Your task to perform on an android device: Open Google Chrome and click the shortcut for Amazon.com Image 0: 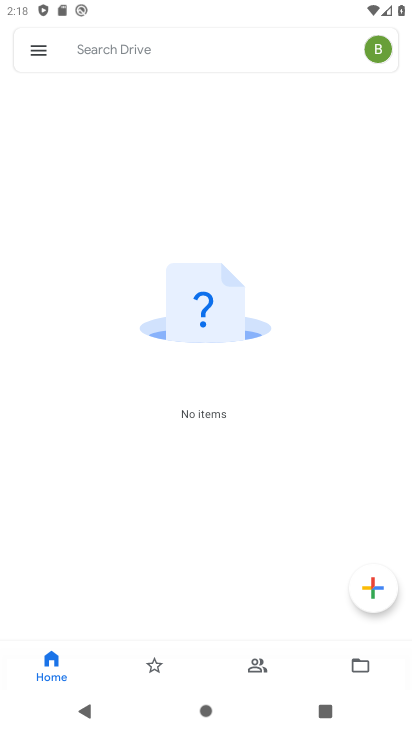
Step 0: press home button
Your task to perform on an android device: Open Google Chrome and click the shortcut for Amazon.com Image 1: 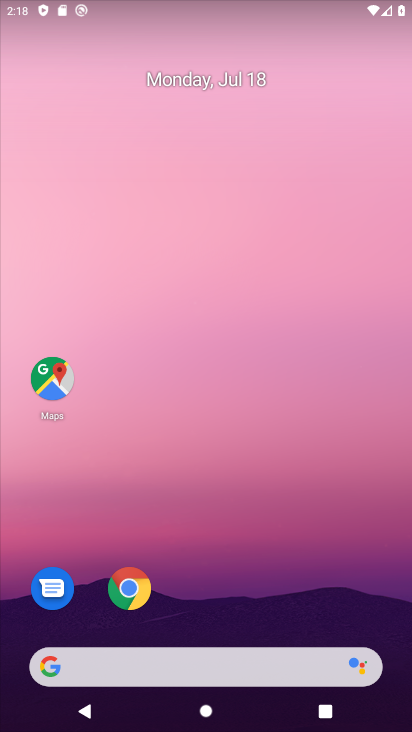
Step 1: drag from (241, 613) to (177, 21)
Your task to perform on an android device: Open Google Chrome and click the shortcut for Amazon.com Image 2: 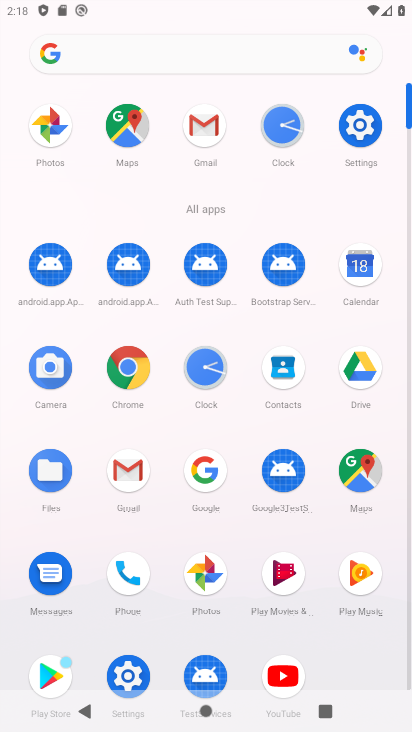
Step 2: click (118, 379)
Your task to perform on an android device: Open Google Chrome and click the shortcut for Amazon.com Image 3: 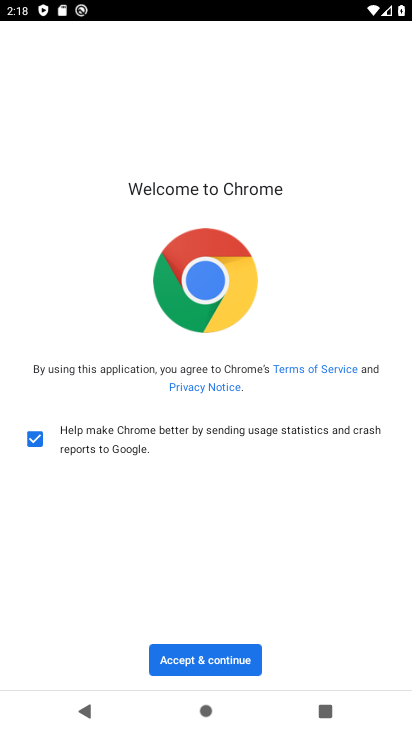
Step 3: click (206, 668)
Your task to perform on an android device: Open Google Chrome and click the shortcut for Amazon.com Image 4: 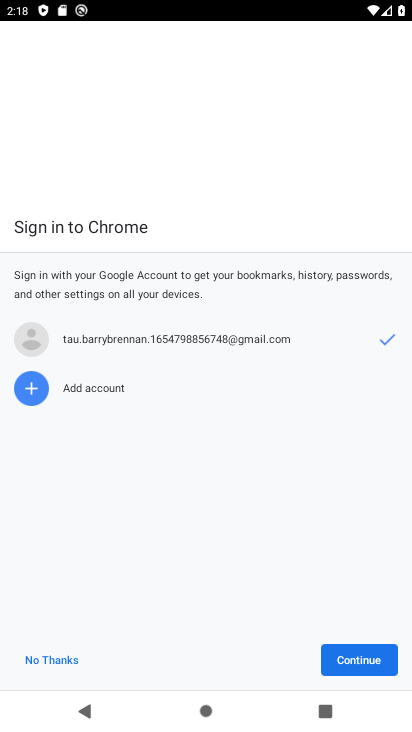
Step 4: click (59, 662)
Your task to perform on an android device: Open Google Chrome and click the shortcut for Amazon.com Image 5: 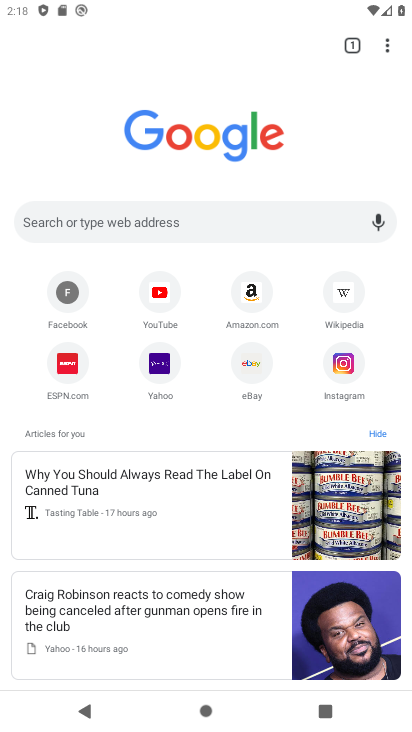
Step 5: click (242, 288)
Your task to perform on an android device: Open Google Chrome and click the shortcut for Amazon.com Image 6: 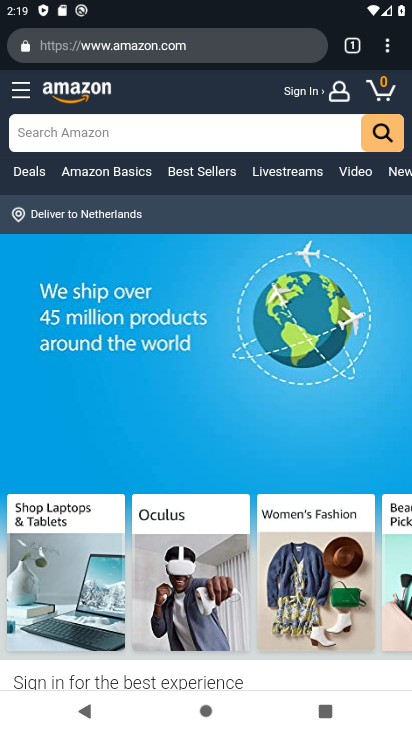
Step 6: drag from (387, 48) to (297, 466)
Your task to perform on an android device: Open Google Chrome and click the shortcut for Amazon.com Image 7: 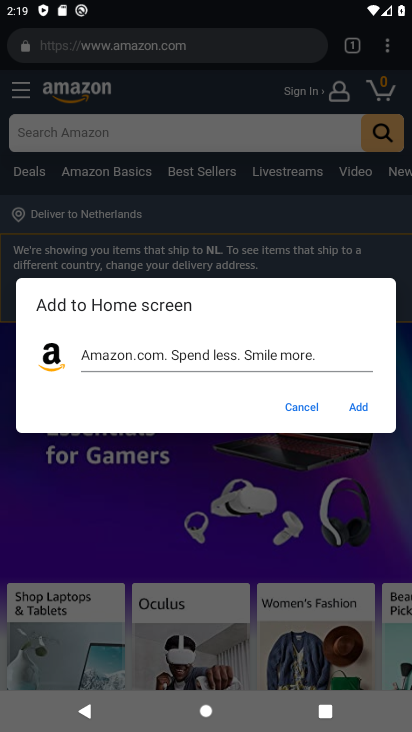
Step 7: click (353, 411)
Your task to perform on an android device: Open Google Chrome and click the shortcut for Amazon.com Image 8: 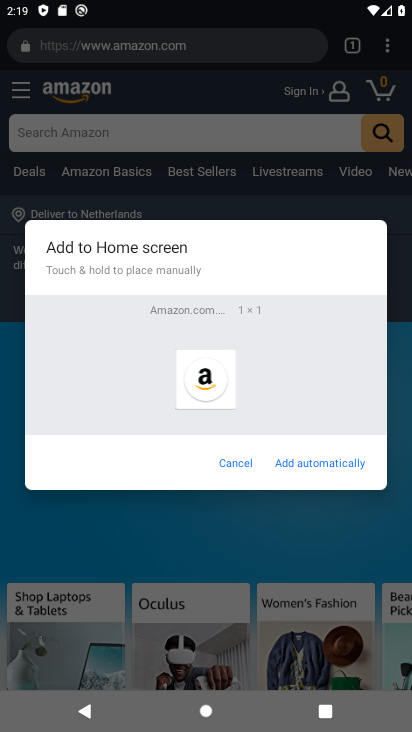
Step 8: click (362, 451)
Your task to perform on an android device: Open Google Chrome and click the shortcut for Amazon.com Image 9: 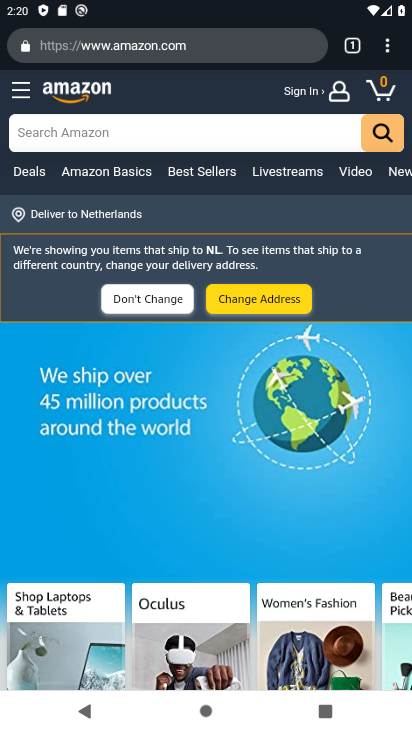
Step 9: task complete